Your task to perform on an android device: open app "DoorDash - Food Delivery" (install if not already installed) Image 0: 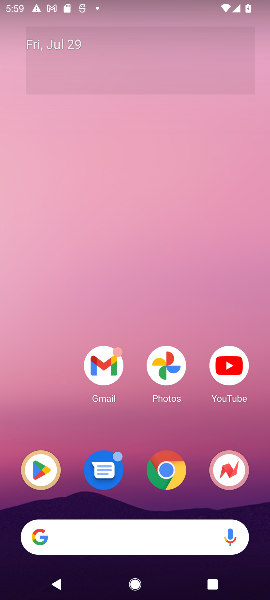
Step 0: drag from (140, 426) to (136, 63)
Your task to perform on an android device: open app "DoorDash - Food Delivery" (install if not already installed) Image 1: 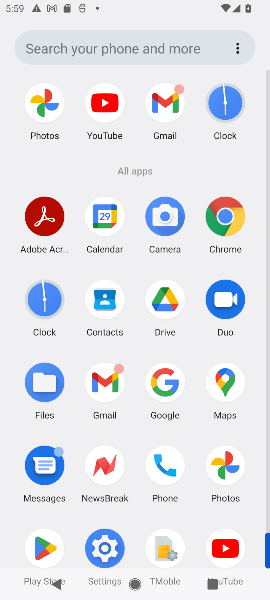
Step 1: click (40, 544)
Your task to perform on an android device: open app "DoorDash - Food Delivery" (install if not already installed) Image 2: 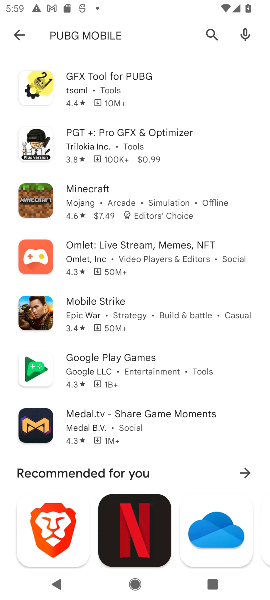
Step 2: click (101, 46)
Your task to perform on an android device: open app "DoorDash - Food Delivery" (install if not already installed) Image 3: 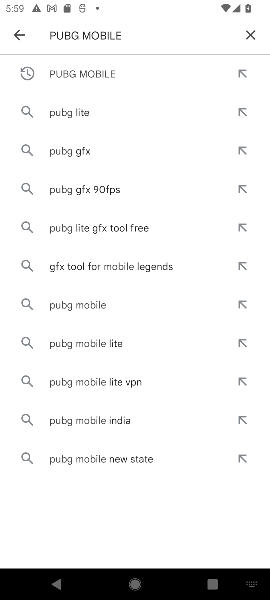
Step 3: click (249, 34)
Your task to perform on an android device: open app "DoorDash - Food Delivery" (install if not already installed) Image 4: 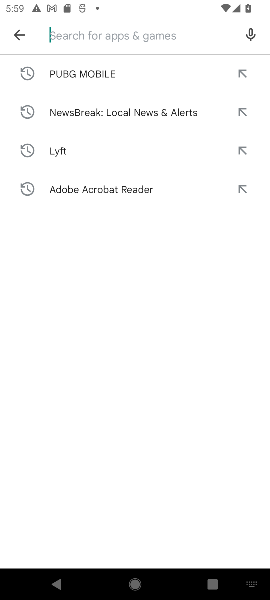
Step 4: type "DoorDash - Food Delivery"
Your task to perform on an android device: open app "DoorDash - Food Delivery" (install if not already installed) Image 5: 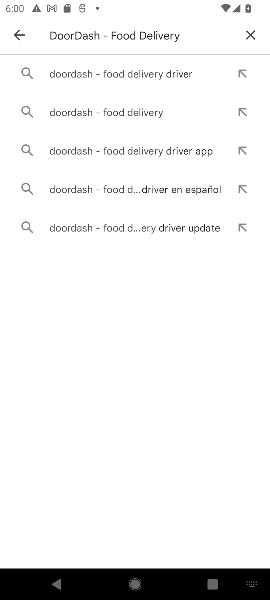
Step 5: press enter
Your task to perform on an android device: open app "DoorDash - Food Delivery" (install if not already installed) Image 6: 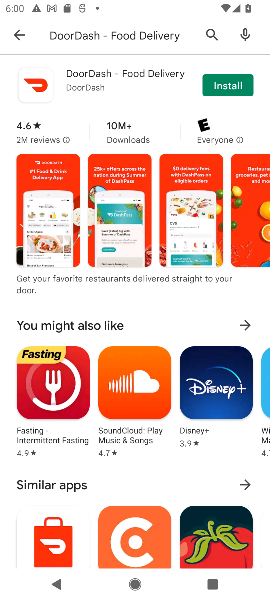
Step 6: click (237, 83)
Your task to perform on an android device: open app "DoorDash - Food Delivery" (install if not already installed) Image 7: 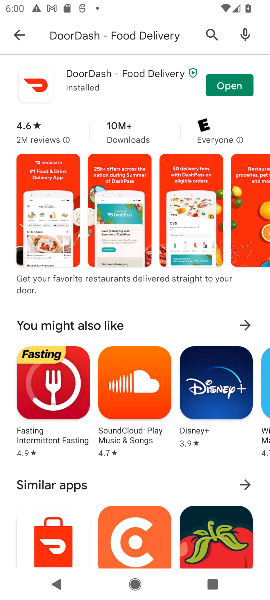
Step 7: click (236, 87)
Your task to perform on an android device: open app "DoorDash - Food Delivery" (install if not already installed) Image 8: 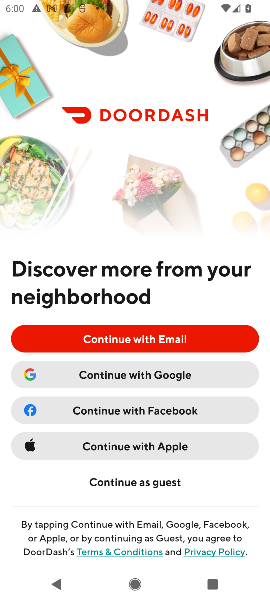
Step 8: task complete